Your task to perform on an android device: open app "eBay: The shopping marketplace" (install if not already installed) Image 0: 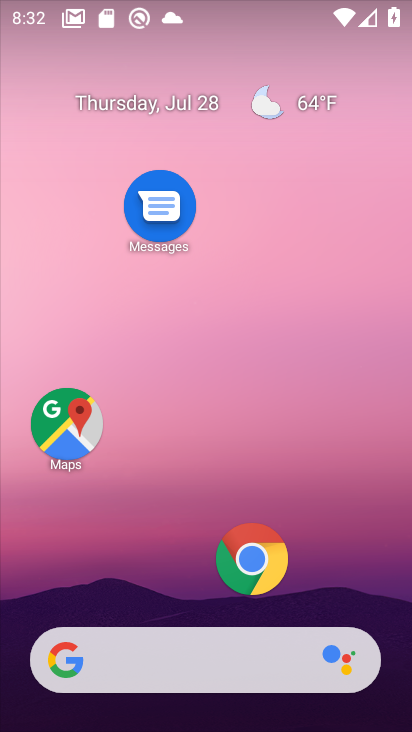
Step 0: drag from (160, 594) to (176, 105)
Your task to perform on an android device: open app "eBay: The shopping marketplace" (install if not already installed) Image 1: 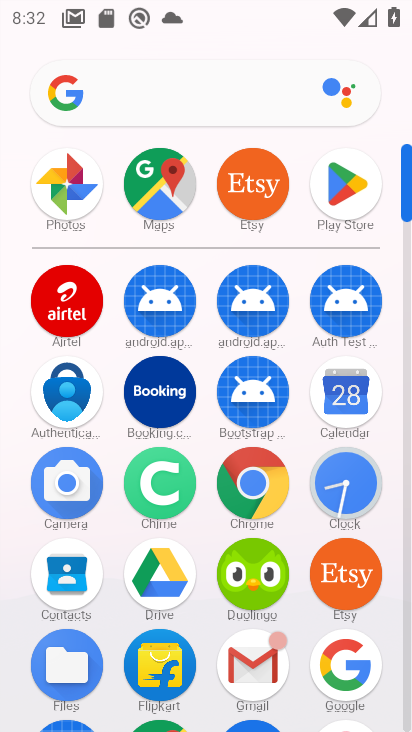
Step 1: click (363, 187)
Your task to perform on an android device: open app "eBay: The shopping marketplace" (install if not already installed) Image 2: 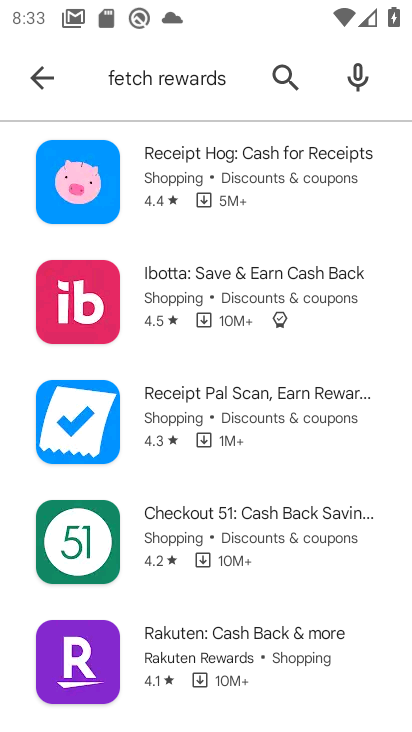
Step 2: click (185, 79)
Your task to perform on an android device: open app "eBay: The shopping marketplace" (install if not already installed) Image 3: 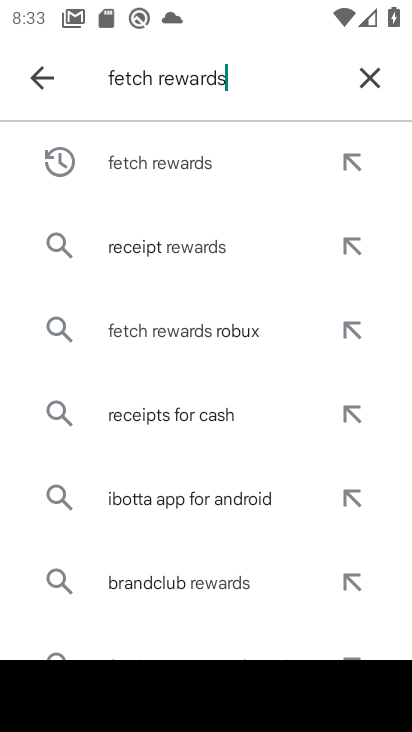
Step 3: click (381, 77)
Your task to perform on an android device: open app "eBay: The shopping marketplace" (install if not already installed) Image 4: 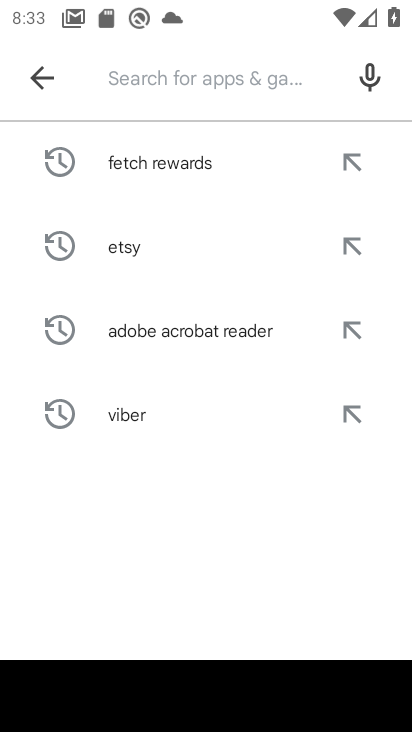
Step 4: type "eBay"
Your task to perform on an android device: open app "eBay: The shopping marketplace" (install if not already installed) Image 5: 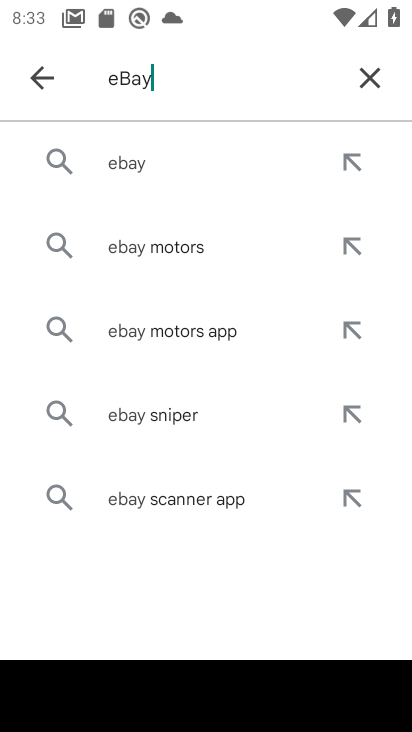
Step 5: click (146, 154)
Your task to perform on an android device: open app "eBay: The shopping marketplace" (install if not already installed) Image 6: 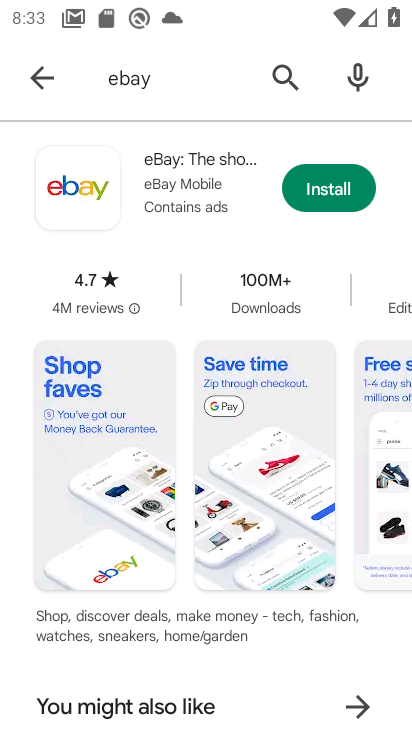
Step 6: click (313, 190)
Your task to perform on an android device: open app "eBay: The shopping marketplace" (install if not already installed) Image 7: 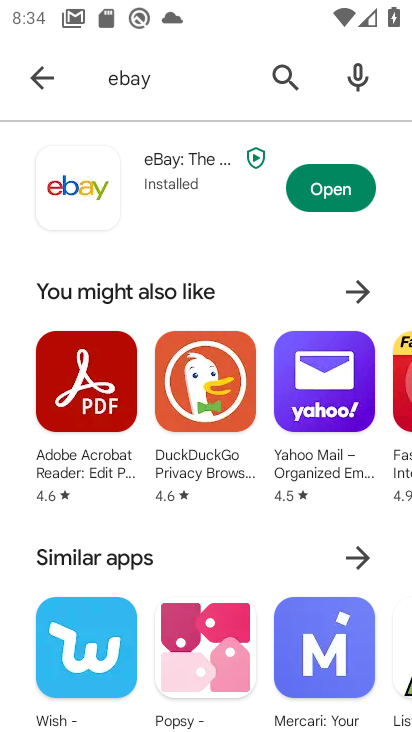
Step 7: click (353, 191)
Your task to perform on an android device: open app "eBay: The shopping marketplace" (install if not already installed) Image 8: 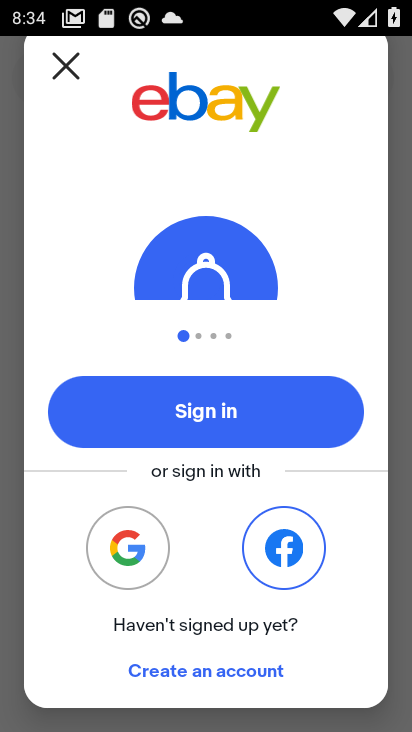
Step 8: click (138, 558)
Your task to perform on an android device: open app "eBay: The shopping marketplace" (install if not already installed) Image 9: 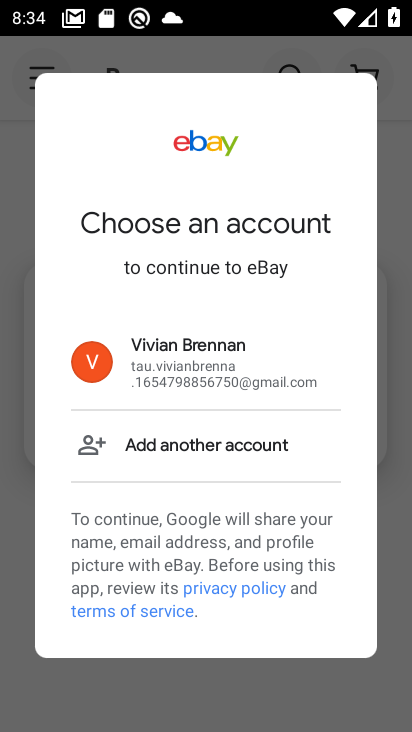
Step 9: click (219, 379)
Your task to perform on an android device: open app "eBay: The shopping marketplace" (install if not already installed) Image 10: 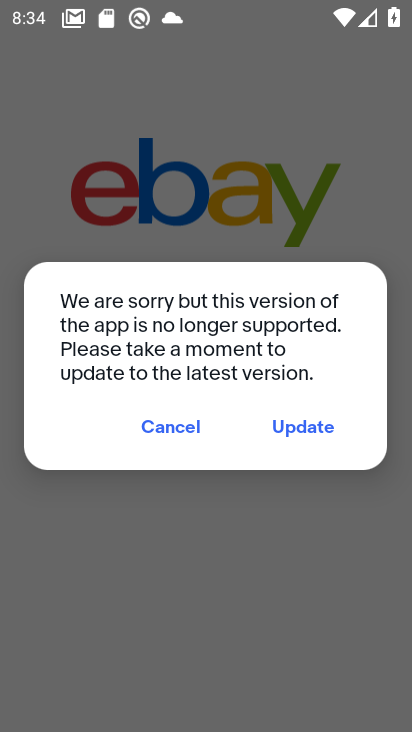
Step 10: click (182, 427)
Your task to perform on an android device: open app "eBay: The shopping marketplace" (install if not already installed) Image 11: 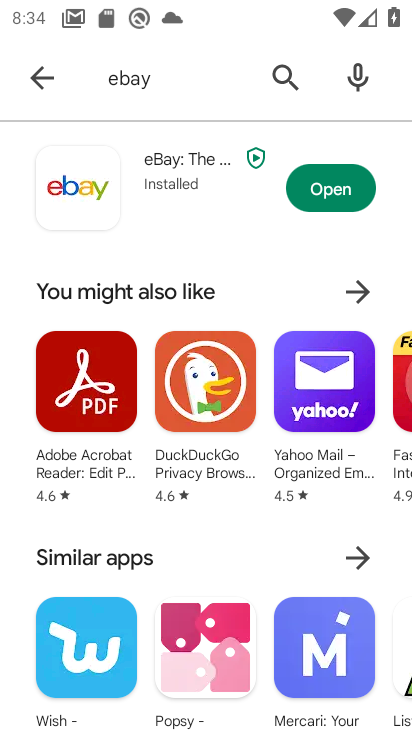
Step 11: task complete